Your task to perform on an android device: turn off priority inbox in the gmail app Image 0: 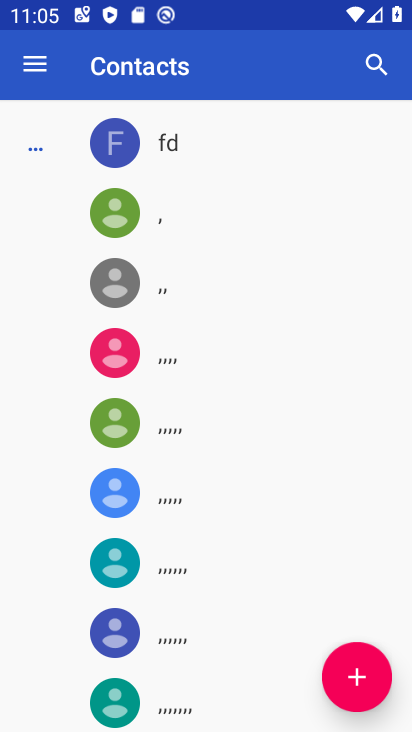
Step 0: press back button
Your task to perform on an android device: turn off priority inbox in the gmail app Image 1: 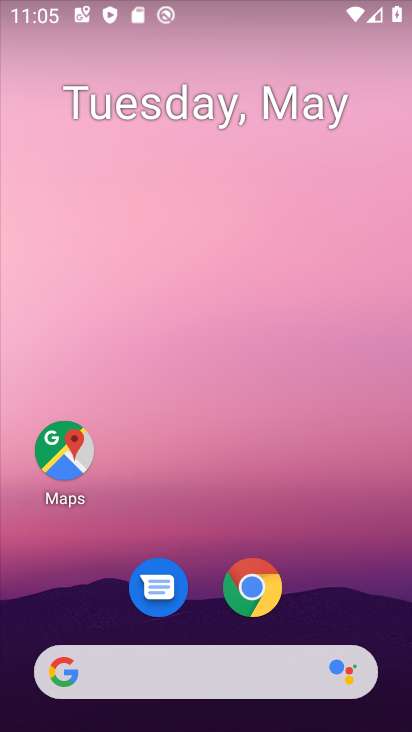
Step 1: drag from (322, 494) to (234, 59)
Your task to perform on an android device: turn off priority inbox in the gmail app Image 2: 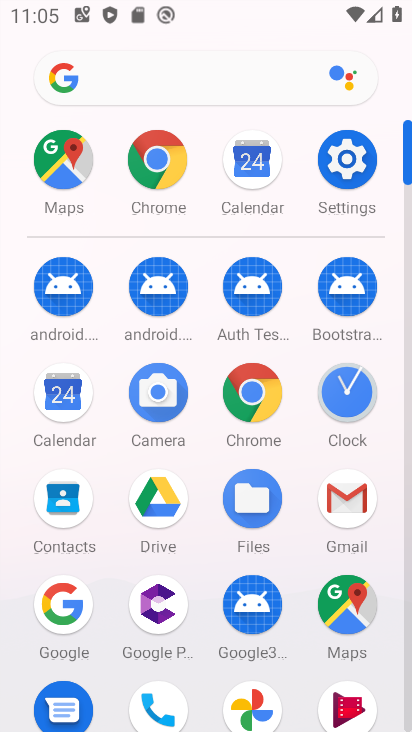
Step 2: drag from (18, 562) to (27, 322)
Your task to perform on an android device: turn off priority inbox in the gmail app Image 3: 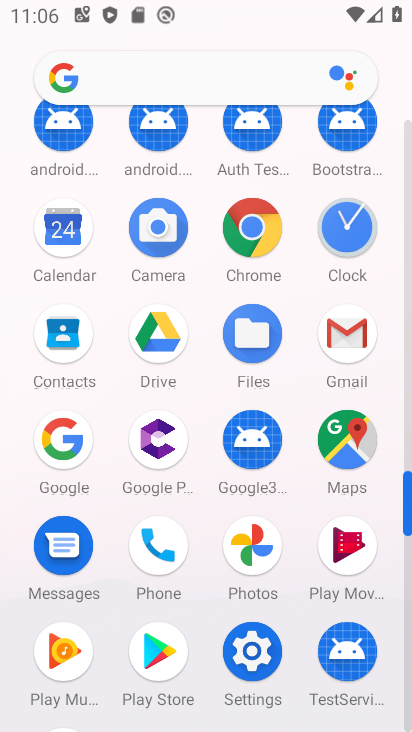
Step 3: click (344, 329)
Your task to perform on an android device: turn off priority inbox in the gmail app Image 4: 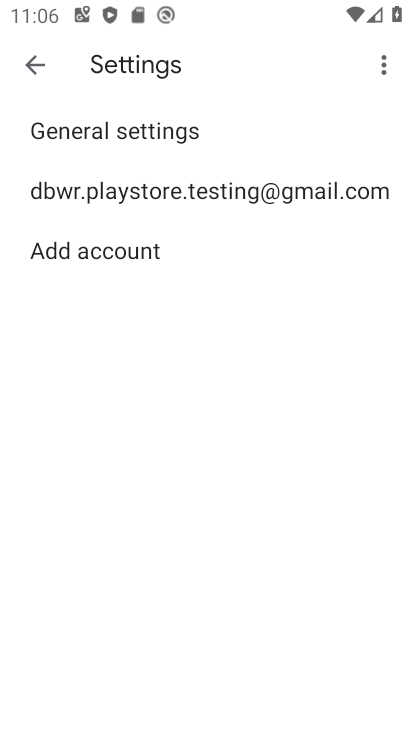
Step 4: click (224, 189)
Your task to perform on an android device: turn off priority inbox in the gmail app Image 5: 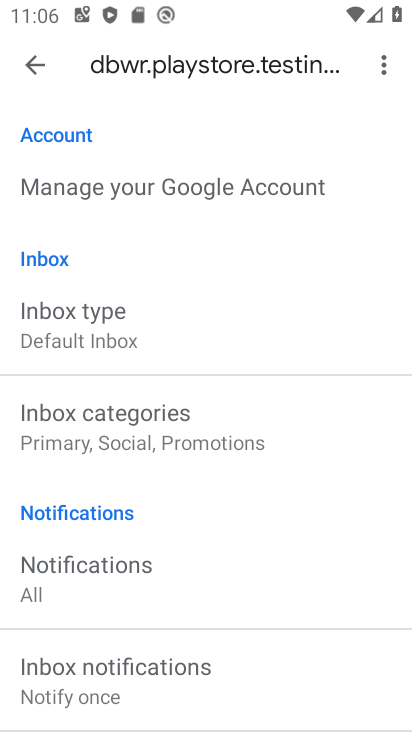
Step 5: drag from (262, 556) to (271, 173)
Your task to perform on an android device: turn off priority inbox in the gmail app Image 6: 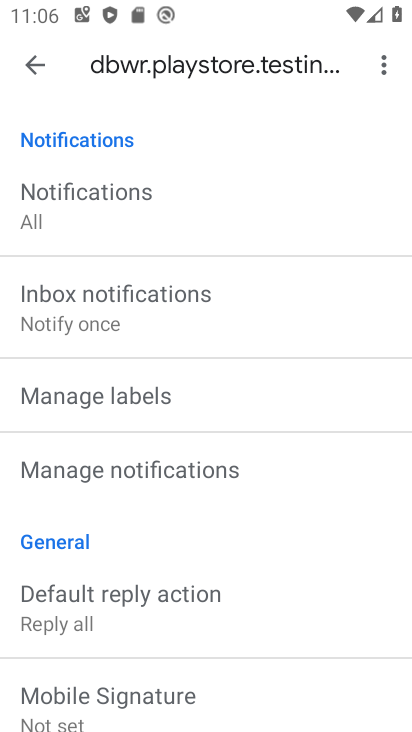
Step 6: drag from (235, 550) to (260, 189)
Your task to perform on an android device: turn off priority inbox in the gmail app Image 7: 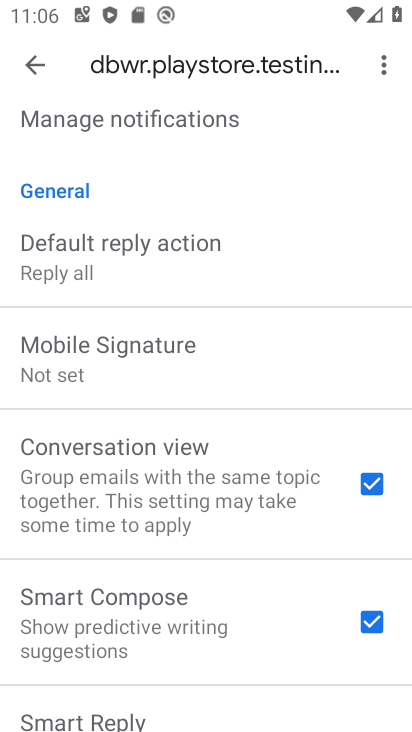
Step 7: drag from (223, 580) to (249, 227)
Your task to perform on an android device: turn off priority inbox in the gmail app Image 8: 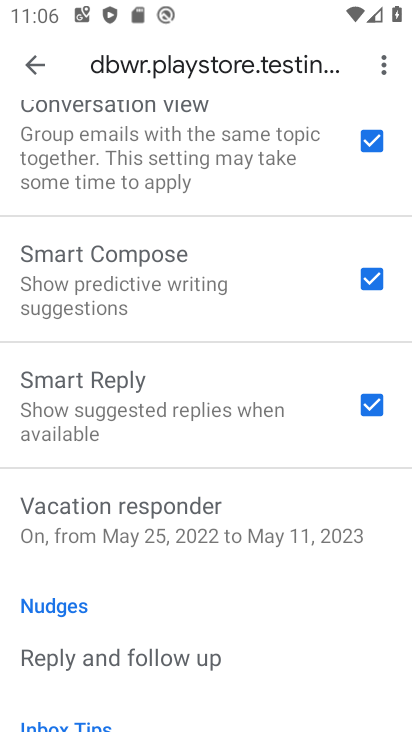
Step 8: drag from (189, 623) to (203, 165)
Your task to perform on an android device: turn off priority inbox in the gmail app Image 9: 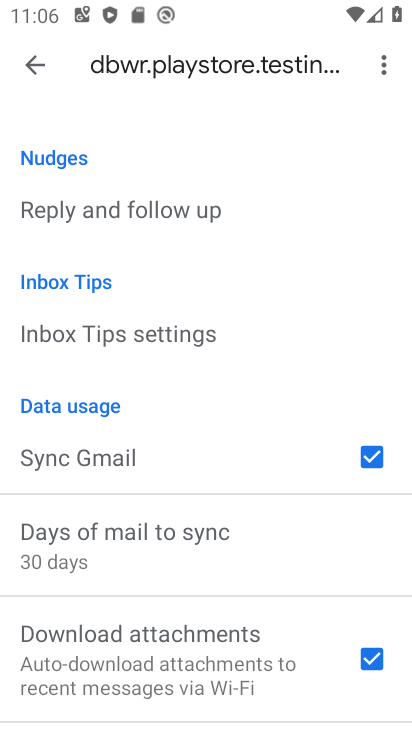
Step 9: drag from (186, 625) to (200, 197)
Your task to perform on an android device: turn off priority inbox in the gmail app Image 10: 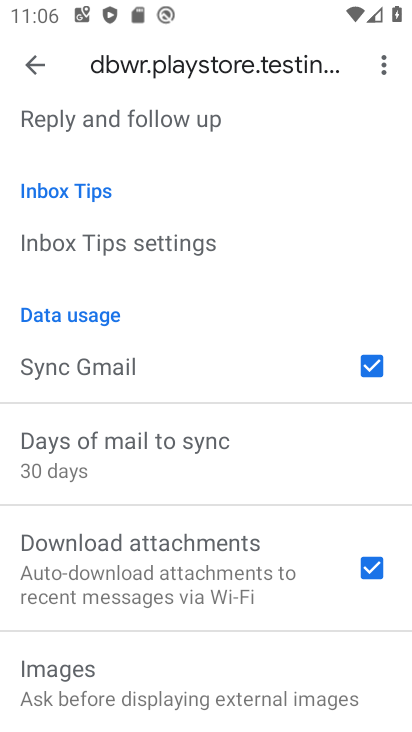
Step 10: drag from (204, 217) to (204, 702)
Your task to perform on an android device: turn off priority inbox in the gmail app Image 11: 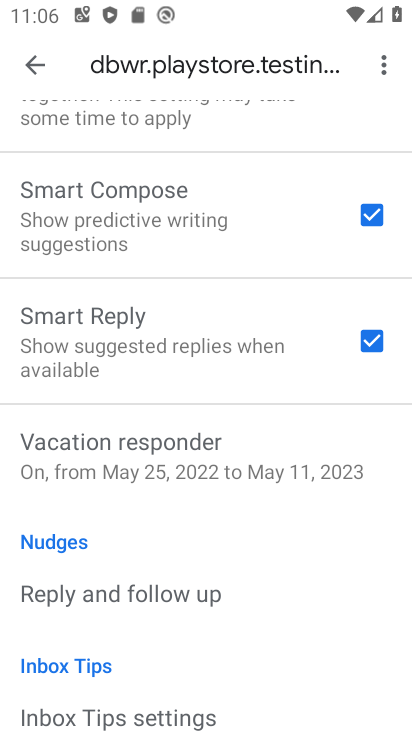
Step 11: drag from (202, 228) to (209, 688)
Your task to perform on an android device: turn off priority inbox in the gmail app Image 12: 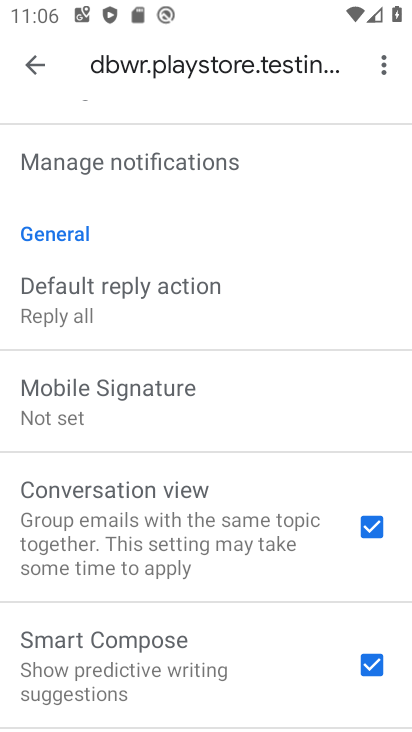
Step 12: drag from (203, 228) to (214, 625)
Your task to perform on an android device: turn off priority inbox in the gmail app Image 13: 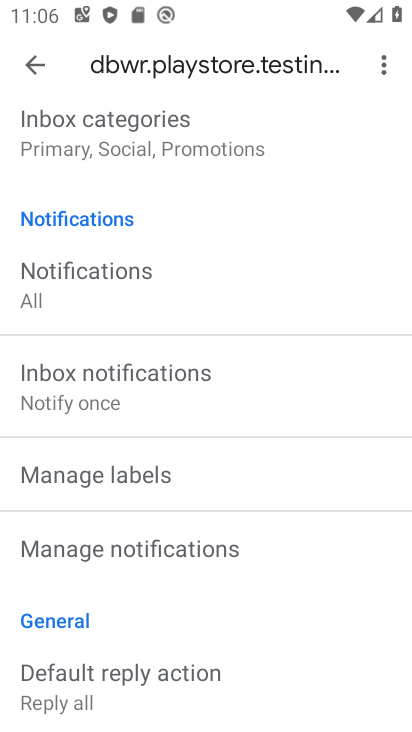
Step 13: drag from (166, 226) to (183, 695)
Your task to perform on an android device: turn off priority inbox in the gmail app Image 14: 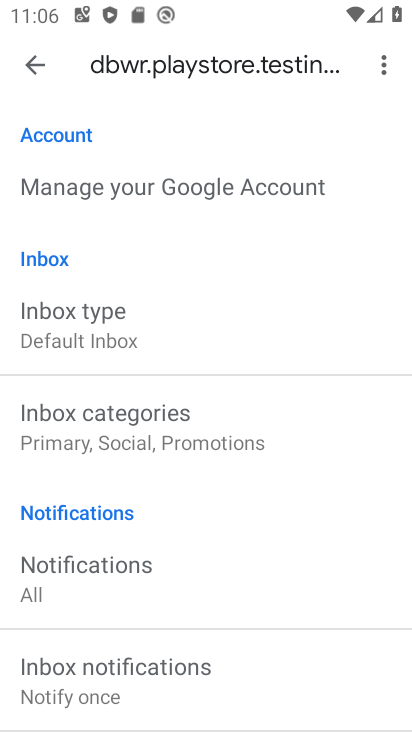
Step 14: click (161, 328)
Your task to perform on an android device: turn off priority inbox in the gmail app Image 15: 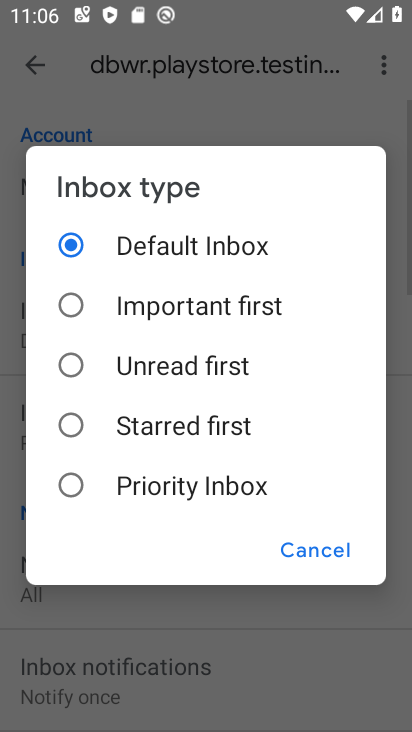
Step 15: click (161, 237)
Your task to perform on an android device: turn off priority inbox in the gmail app Image 16: 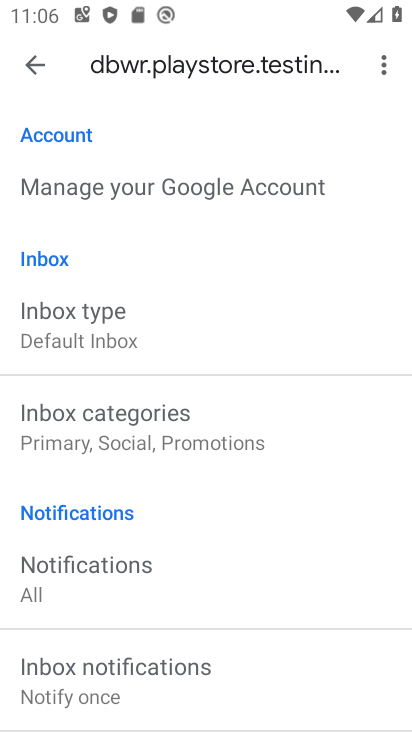
Step 16: task complete